Your task to perform on an android device: turn on bluetooth scan Image 0: 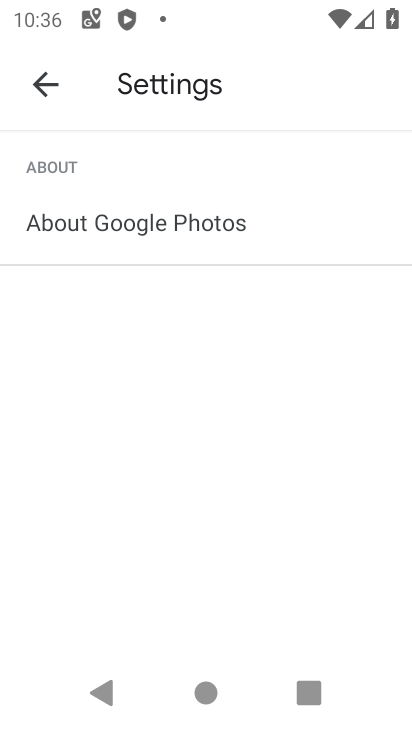
Step 0: press home button
Your task to perform on an android device: turn on bluetooth scan Image 1: 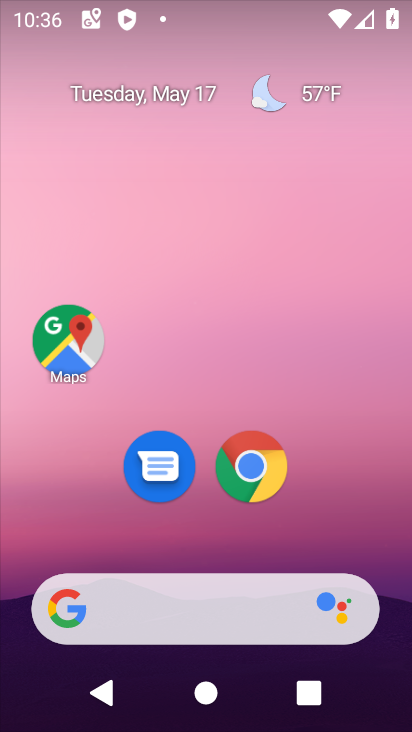
Step 1: drag from (187, 555) to (283, 20)
Your task to perform on an android device: turn on bluetooth scan Image 2: 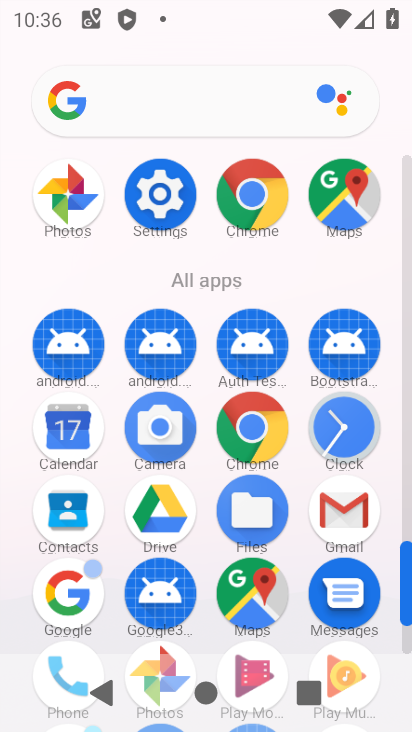
Step 2: click (153, 202)
Your task to perform on an android device: turn on bluetooth scan Image 3: 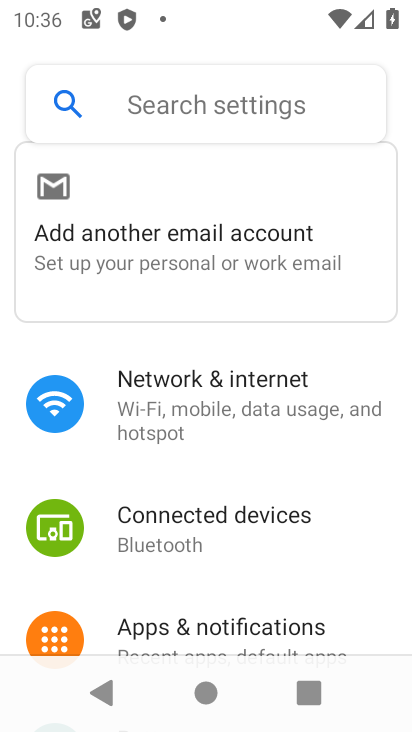
Step 3: drag from (234, 590) to (177, 139)
Your task to perform on an android device: turn on bluetooth scan Image 4: 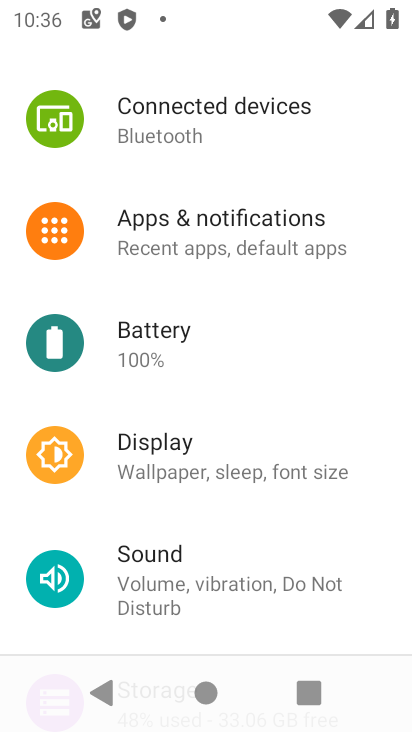
Step 4: drag from (181, 593) to (121, 81)
Your task to perform on an android device: turn on bluetooth scan Image 5: 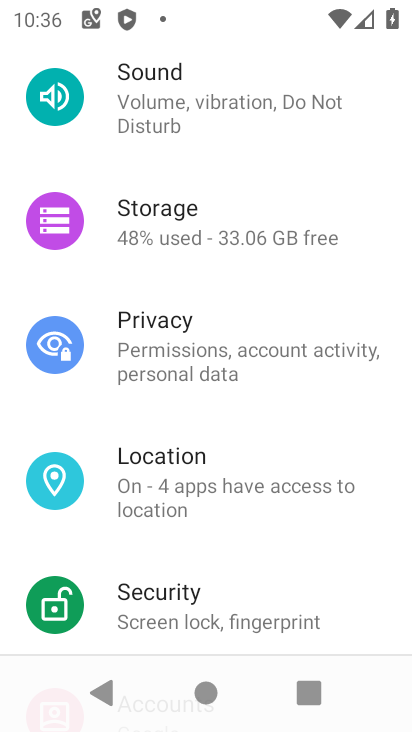
Step 5: click (210, 471)
Your task to perform on an android device: turn on bluetooth scan Image 6: 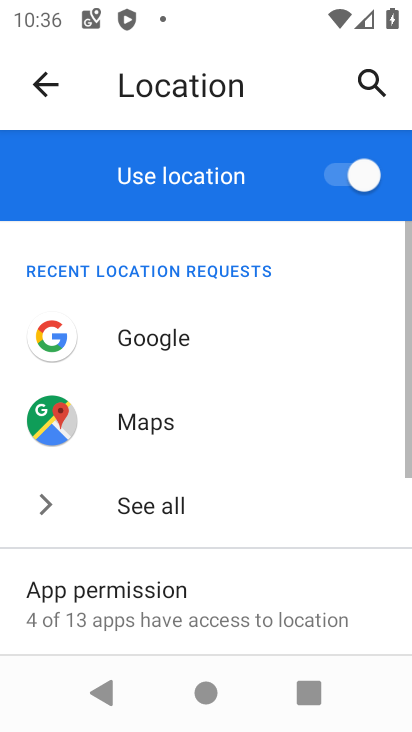
Step 6: drag from (220, 633) to (156, 225)
Your task to perform on an android device: turn on bluetooth scan Image 7: 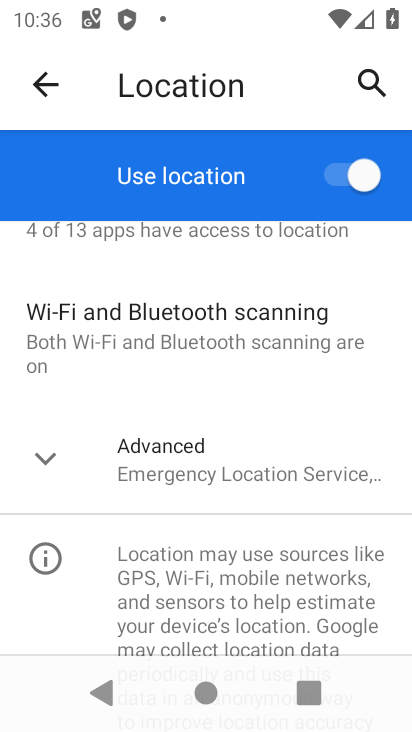
Step 7: click (212, 362)
Your task to perform on an android device: turn on bluetooth scan Image 8: 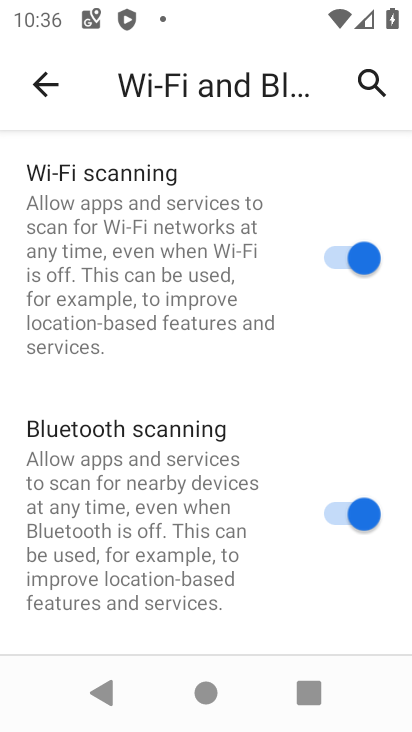
Step 8: task complete